Your task to perform on an android device: delete location history Image 0: 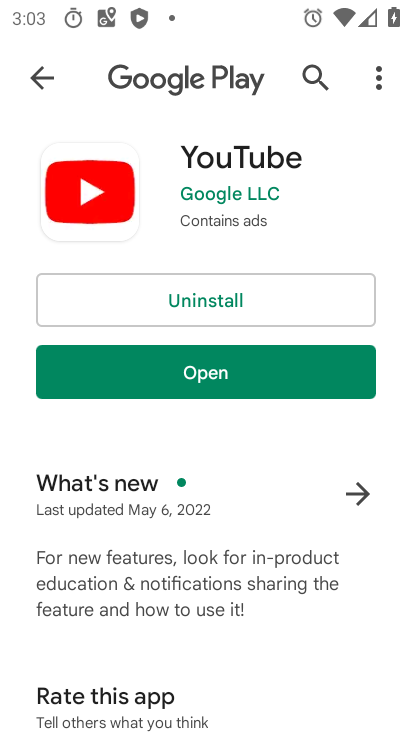
Step 0: press home button
Your task to perform on an android device: delete location history Image 1: 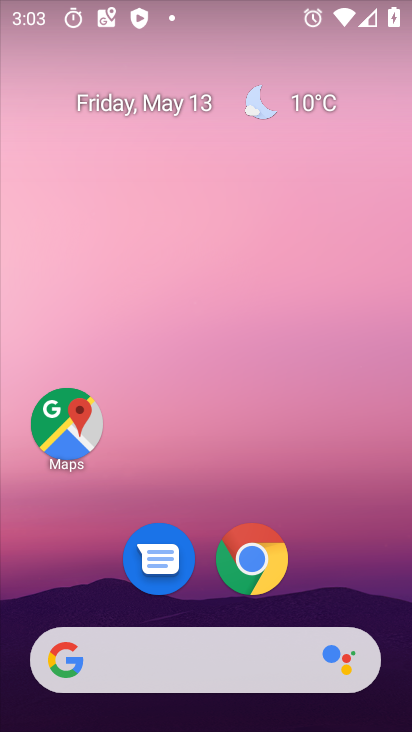
Step 1: drag from (218, 605) to (220, 272)
Your task to perform on an android device: delete location history Image 2: 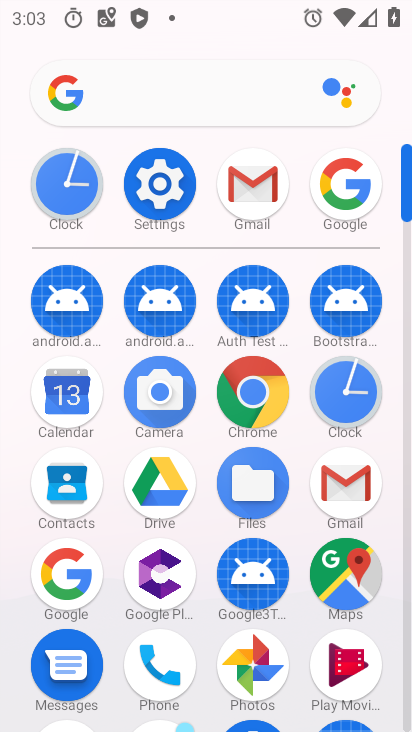
Step 2: click (177, 207)
Your task to perform on an android device: delete location history Image 3: 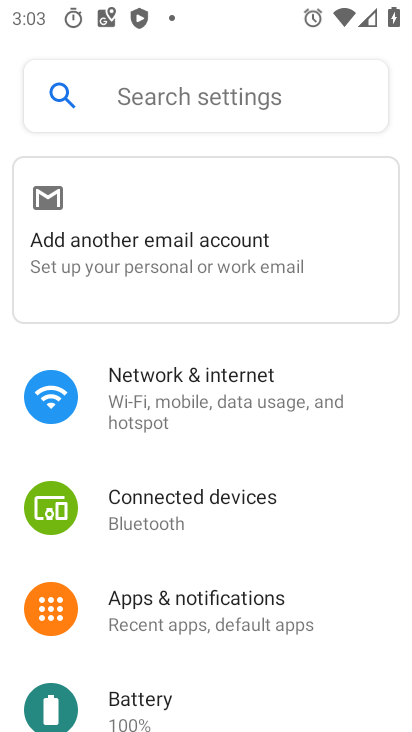
Step 3: press home button
Your task to perform on an android device: delete location history Image 4: 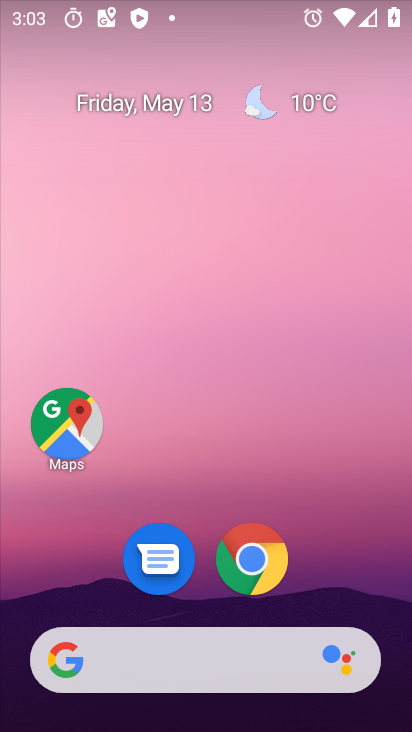
Step 4: click (78, 450)
Your task to perform on an android device: delete location history Image 5: 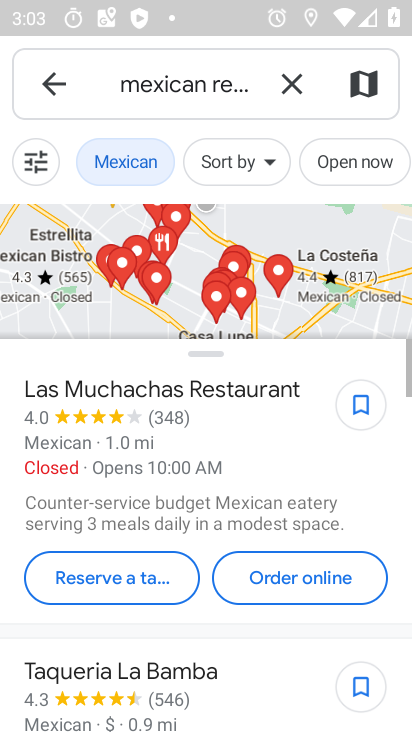
Step 5: click (42, 100)
Your task to perform on an android device: delete location history Image 6: 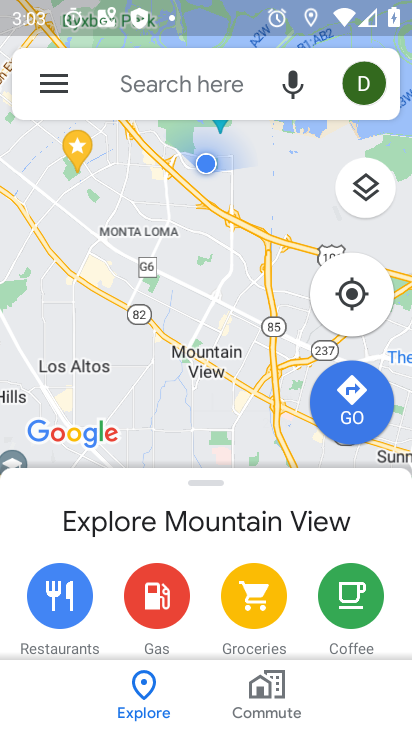
Step 6: click (42, 100)
Your task to perform on an android device: delete location history Image 7: 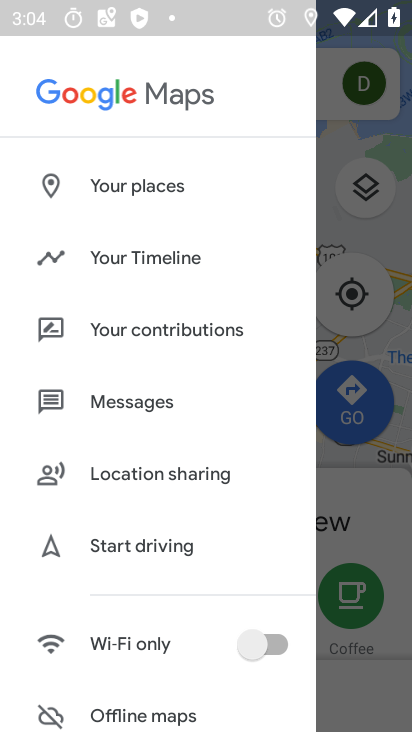
Step 7: drag from (142, 585) to (167, 366)
Your task to perform on an android device: delete location history Image 8: 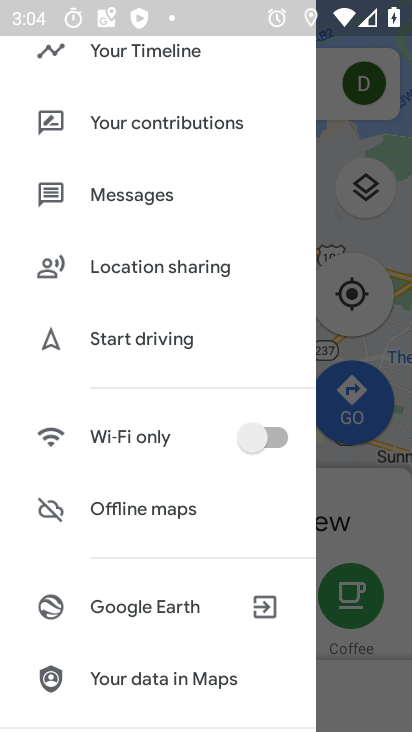
Step 8: click (161, 63)
Your task to perform on an android device: delete location history Image 9: 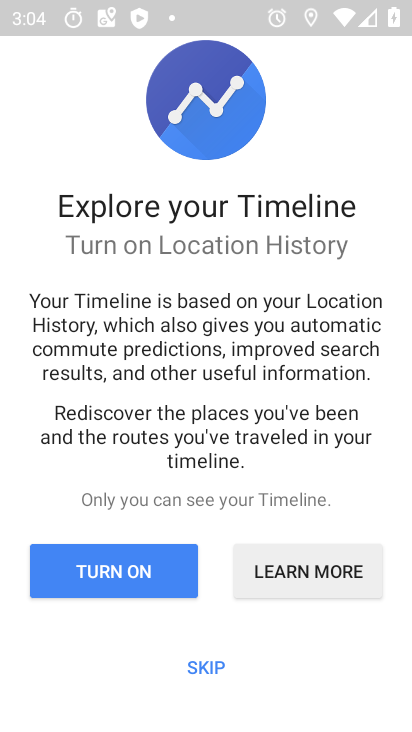
Step 9: click (194, 662)
Your task to perform on an android device: delete location history Image 10: 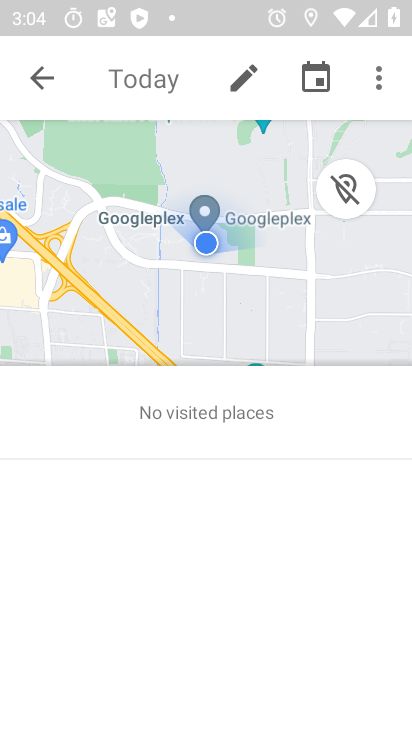
Step 10: click (387, 77)
Your task to perform on an android device: delete location history Image 11: 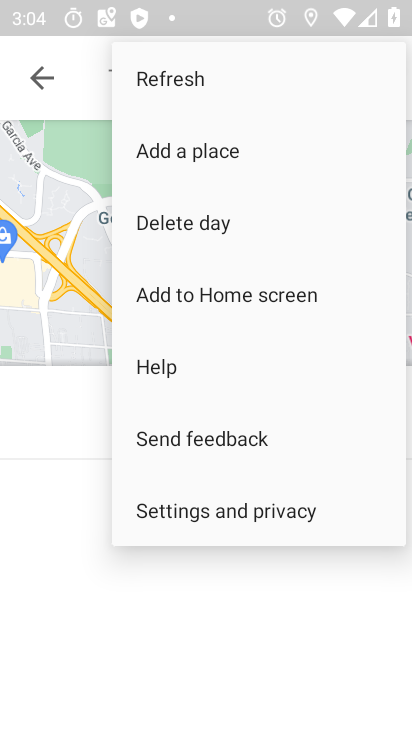
Step 11: click (217, 498)
Your task to perform on an android device: delete location history Image 12: 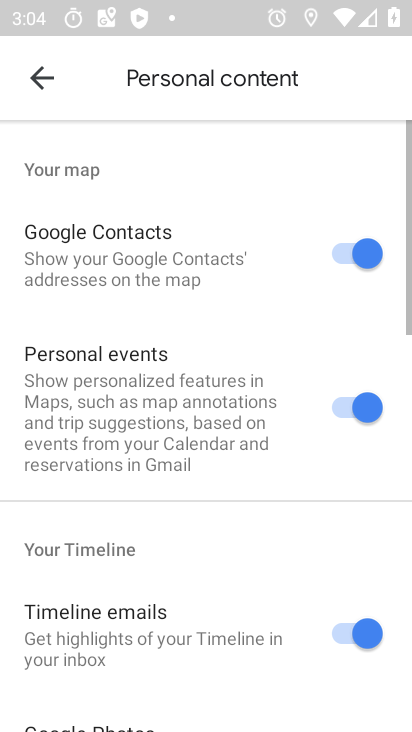
Step 12: drag from (226, 569) to (229, 209)
Your task to perform on an android device: delete location history Image 13: 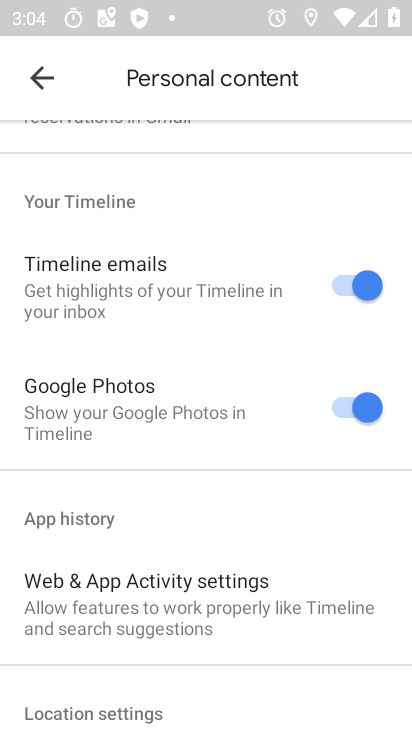
Step 13: drag from (208, 571) to (204, 300)
Your task to perform on an android device: delete location history Image 14: 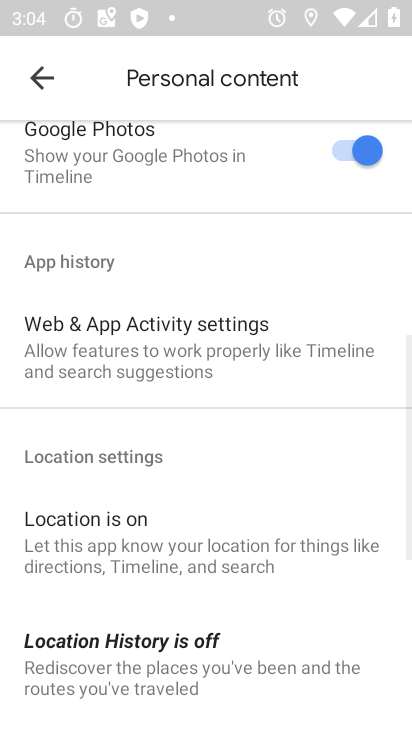
Step 14: drag from (236, 586) to (238, 351)
Your task to perform on an android device: delete location history Image 15: 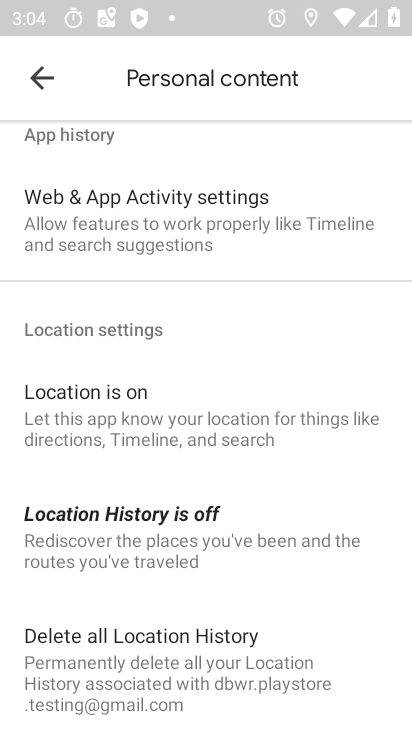
Step 15: click (220, 648)
Your task to perform on an android device: delete location history Image 16: 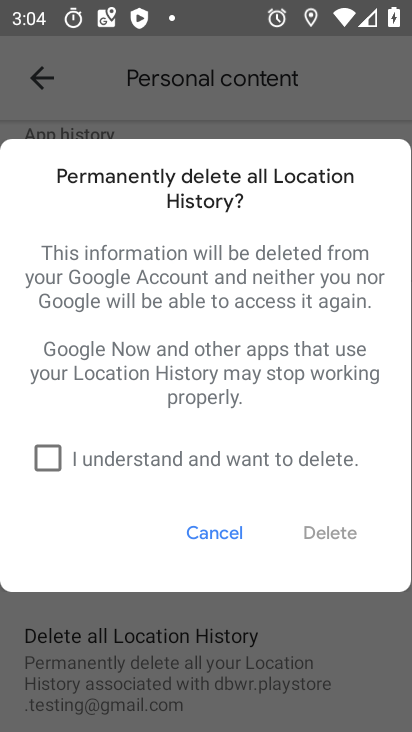
Step 16: click (63, 469)
Your task to perform on an android device: delete location history Image 17: 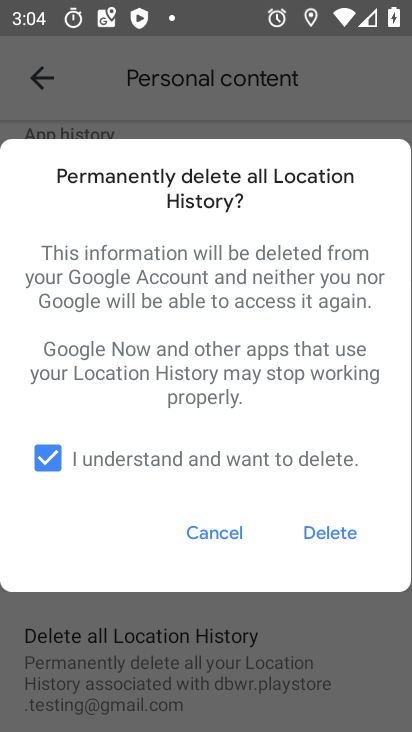
Step 17: click (319, 536)
Your task to perform on an android device: delete location history Image 18: 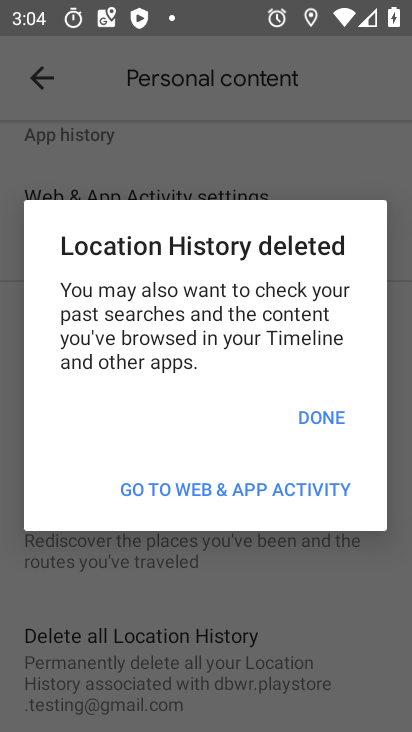
Step 18: task complete